Your task to perform on an android device: Turn off the flashlight Image 0: 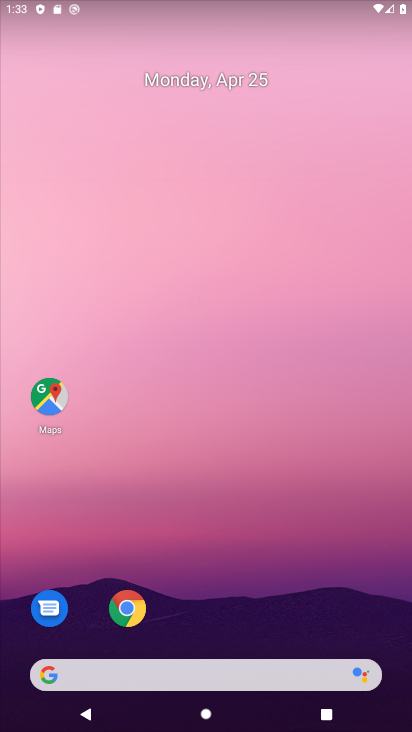
Step 0: drag from (321, 4) to (316, 214)
Your task to perform on an android device: Turn off the flashlight Image 1: 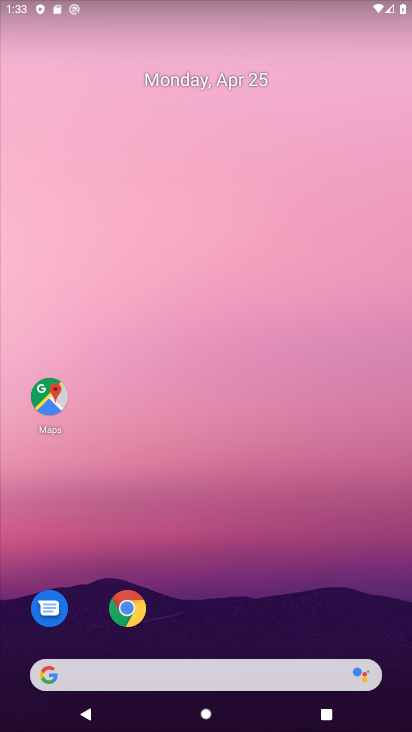
Step 1: drag from (211, 3) to (246, 458)
Your task to perform on an android device: Turn off the flashlight Image 2: 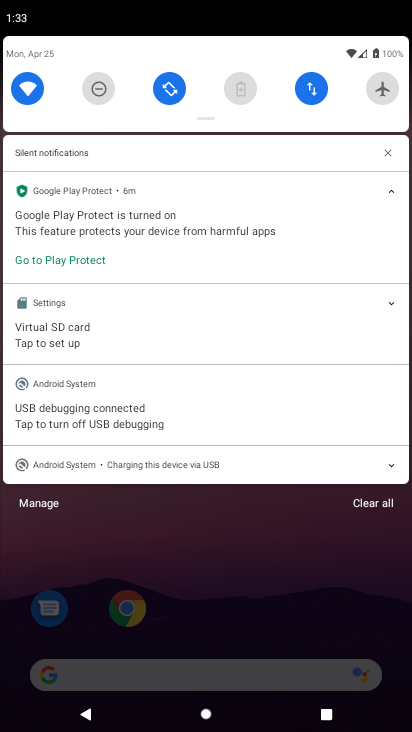
Step 2: drag from (209, 71) to (213, 388)
Your task to perform on an android device: Turn off the flashlight Image 3: 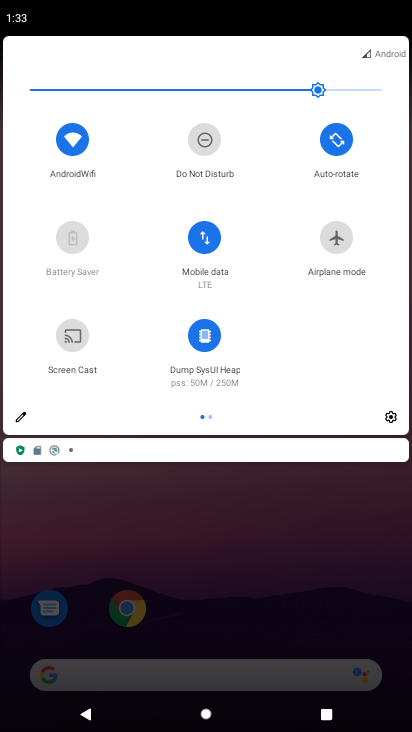
Step 3: click (15, 398)
Your task to perform on an android device: Turn off the flashlight Image 4: 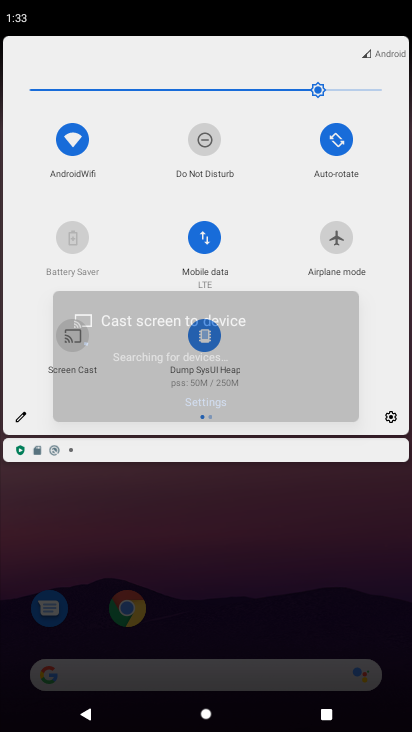
Step 4: click (25, 416)
Your task to perform on an android device: Turn off the flashlight Image 5: 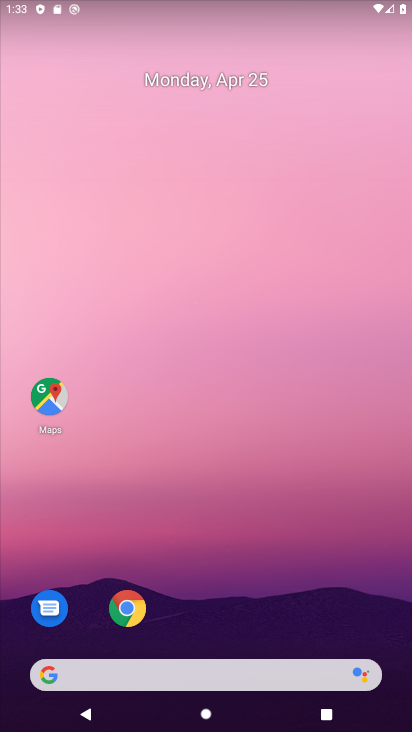
Step 5: task complete